Your task to perform on an android device: turn off javascript in the chrome app Image 0: 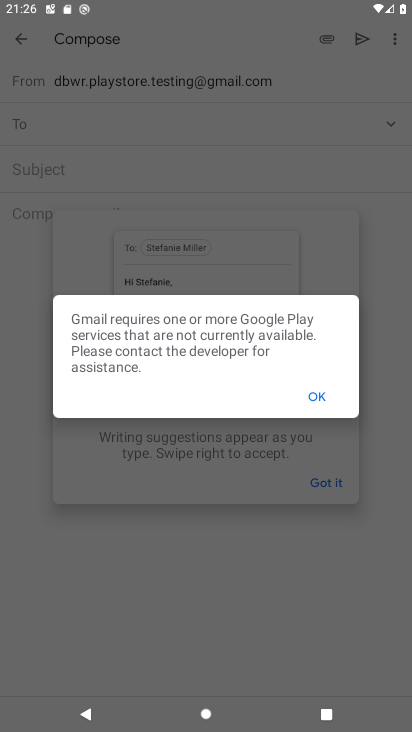
Step 0: press home button
Your task to perform on an android device: turn off javascript in the chrome app Image 1: 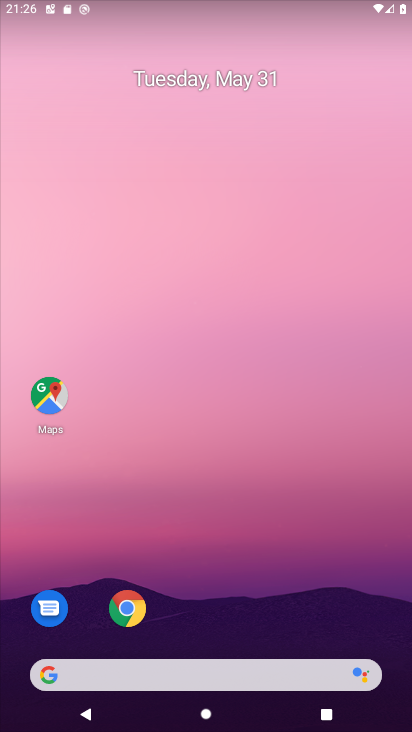
Step 1: click (127, 609)
Your task to perform on an android device: turn off javascript in the chrome app Image 2: 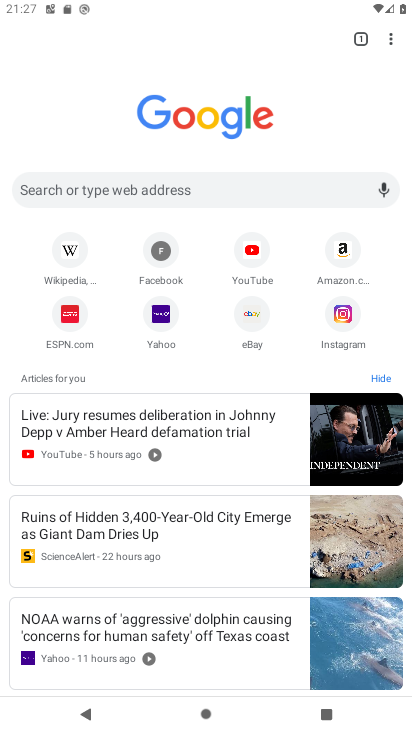
Step 2: click (391, 40)
Your task to perform on an android device: turn off javascript in the chrome app Image 3: 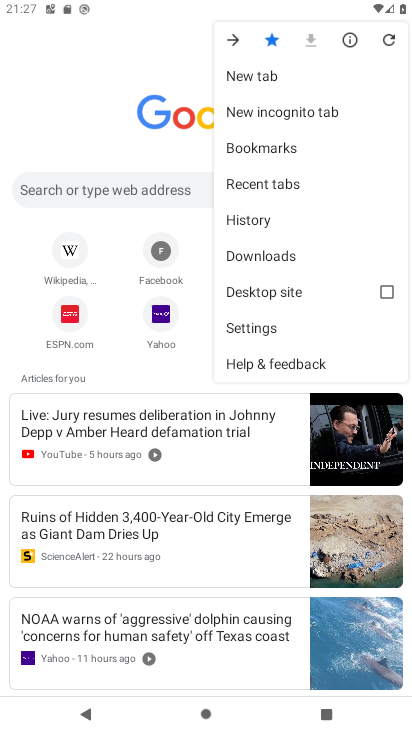
Step 3: click (270, 330)
Your task to perform on an android device: turn off javascript in the chrome app Image 4: 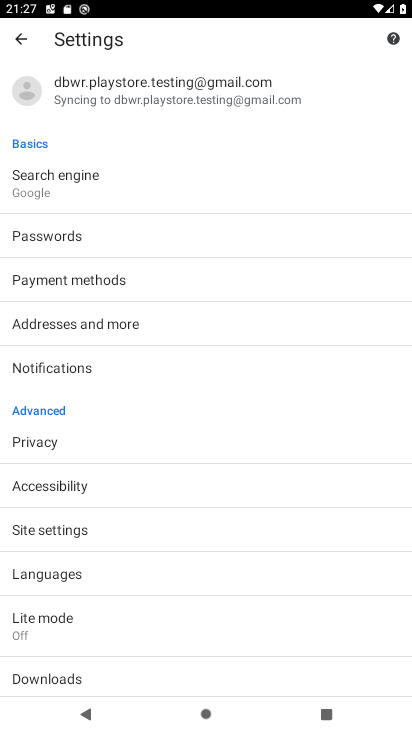
Step 4: click (72, 530)
Your task to perform on an android device: turn off javascript in the chrome app Image 5: 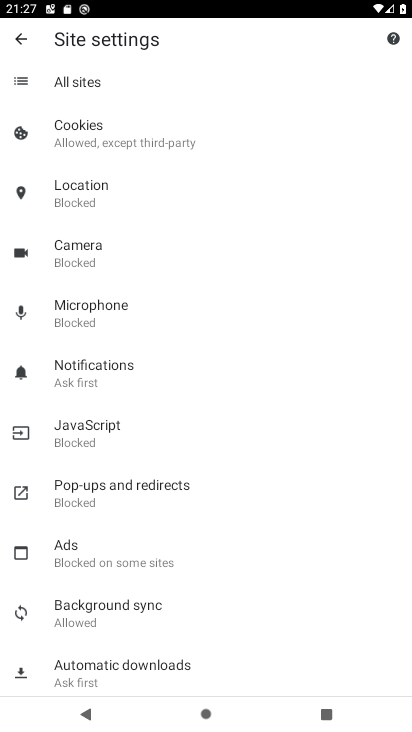
Step 5: click (96, 445)
Your task to perform on an android device: turn off javascript in the chrome app Image 6: 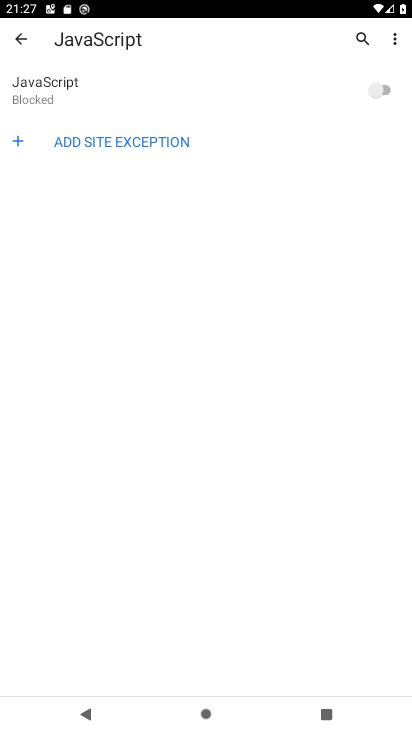
Step 6: task complete